Your task to perform on an android device: remove spam from my inbox in the gmail app Image 0: 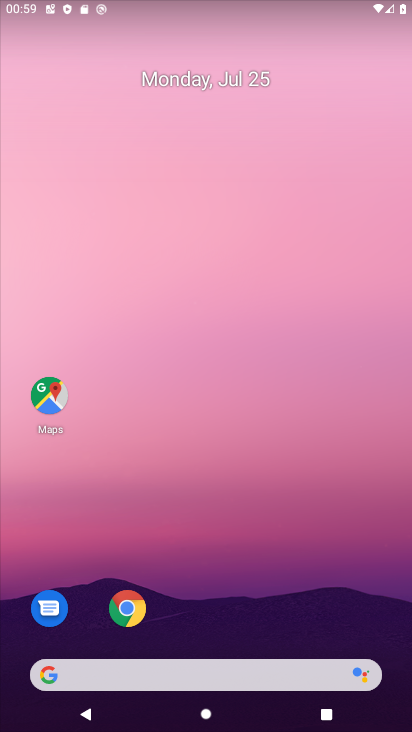
Step 0: drag from (193, 648) to (325, 34)
Your task to perform on an android device: remove spam from my inbox in the gmail app Image 1: 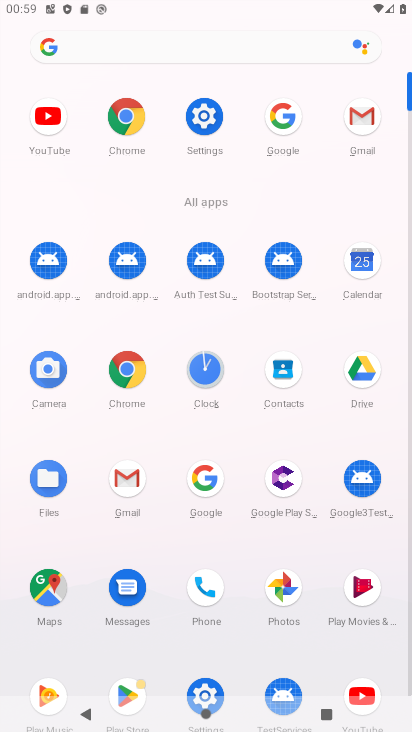
Step 1: click (111, 481)
Your task to perform on an android device: remove spam from my inbox in the gmail app Image 2: 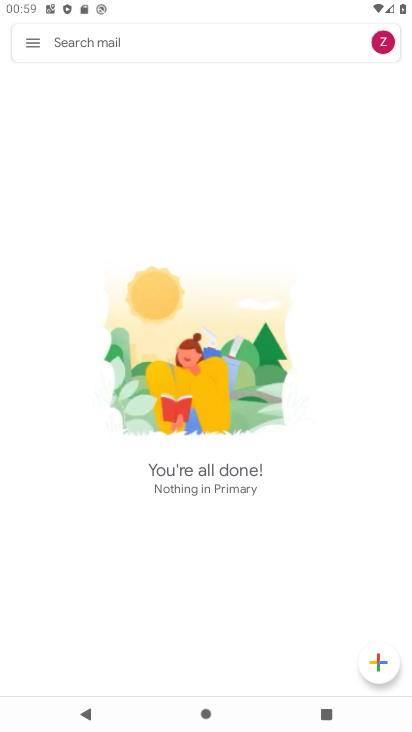
Step 2: click (20, 48)
Your task to perform on an android device: remove spam from my inbox in the gmail app Image 3: 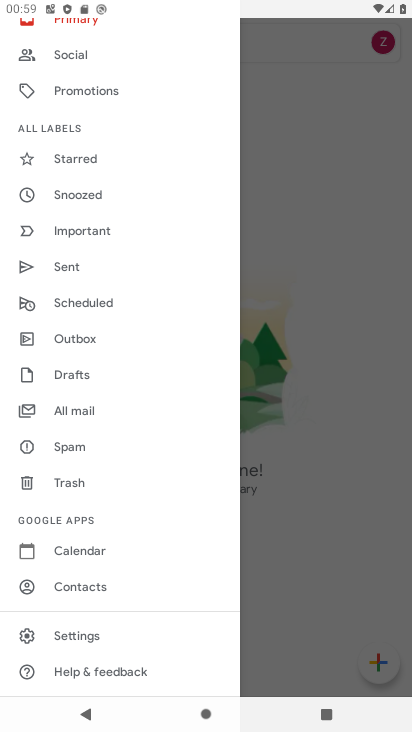
Step 3: click (81, 442)
Your task to perform on an android device: remove spam from my inbox in the gmail app Image 4: 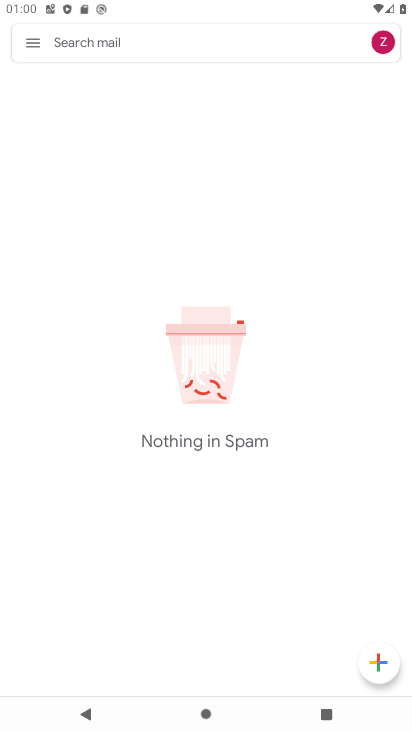
Step 4: task complete